Your task to perform on an android device: Open Google Chrome and click the shortcut for Amazon.com Image 0: 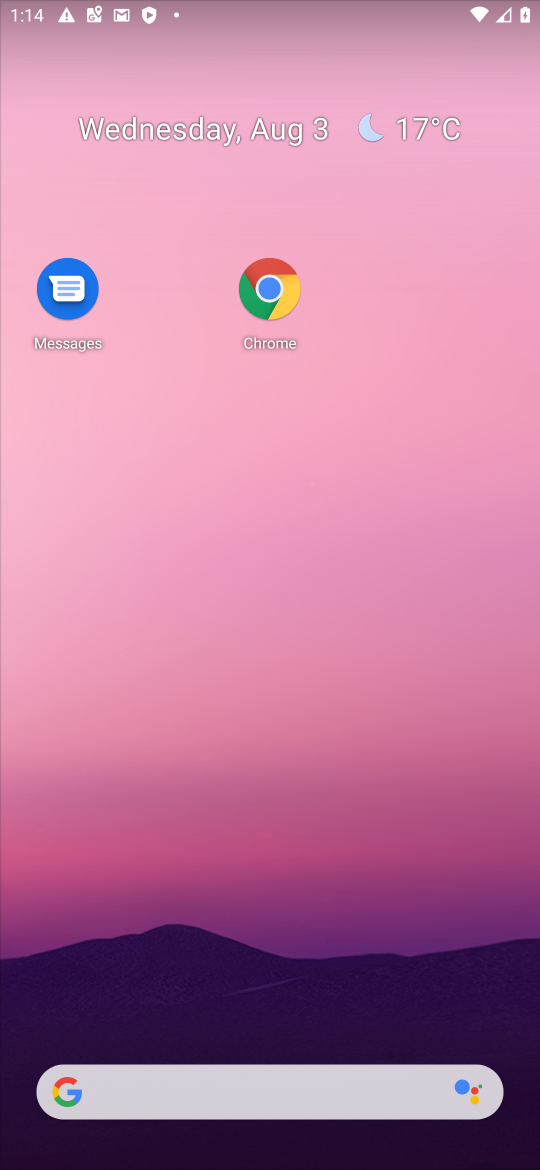
Step 0: click (242, 317)
Your task to perform on an android device: Open Google Chrome and click the shortcut for Amazon.com Image 1: 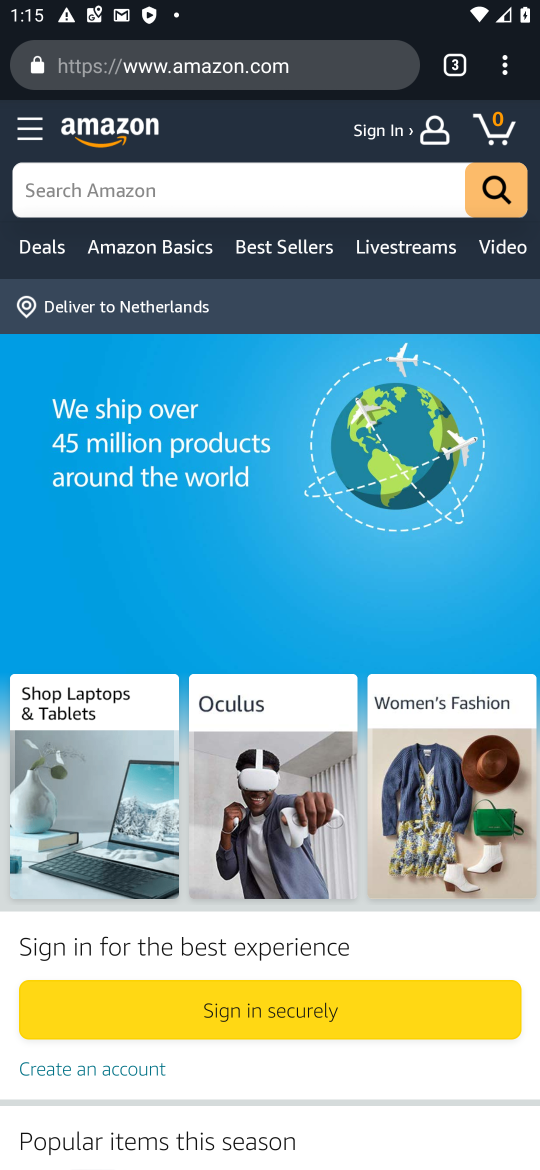
Step 1: task complete